Your task to perform on an android device: Search for the best rated mechanical keyboard on Amazon. Image 0: 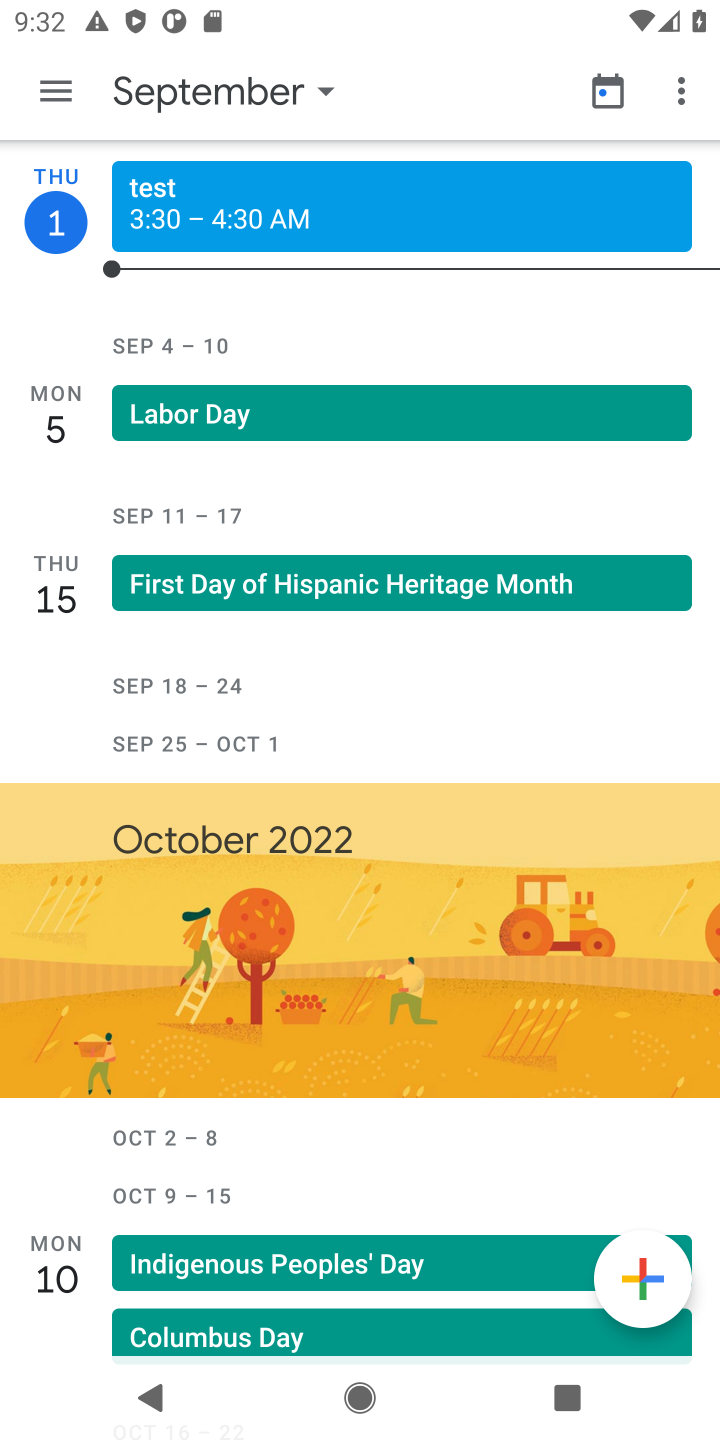
Step 0: press home button
Your task to perform on an android device: Search for the best rated mechanical keyboard on Amazon. Image 1: 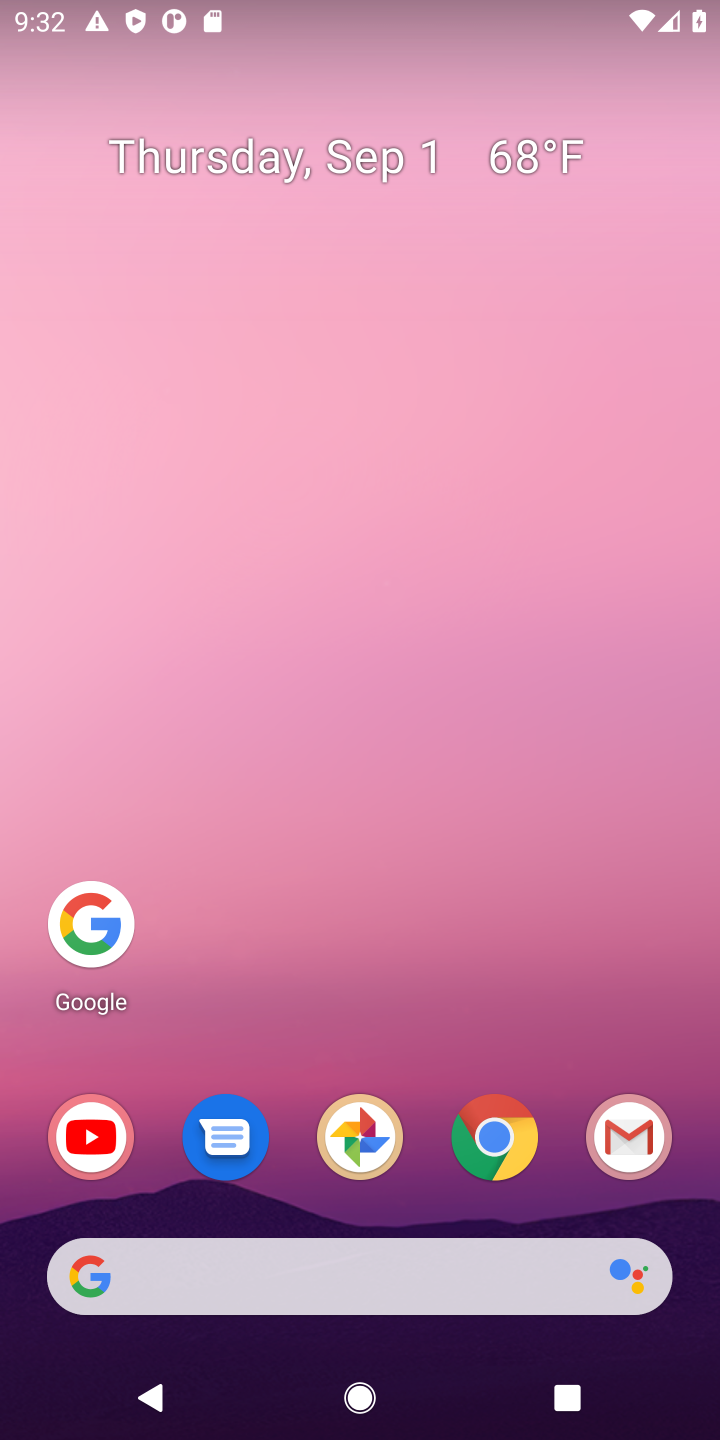
Step 1: click (211, 1288)
Your task to perform on an android device: Search for the best rated mechanical keyboard on Amazon. Image 2: 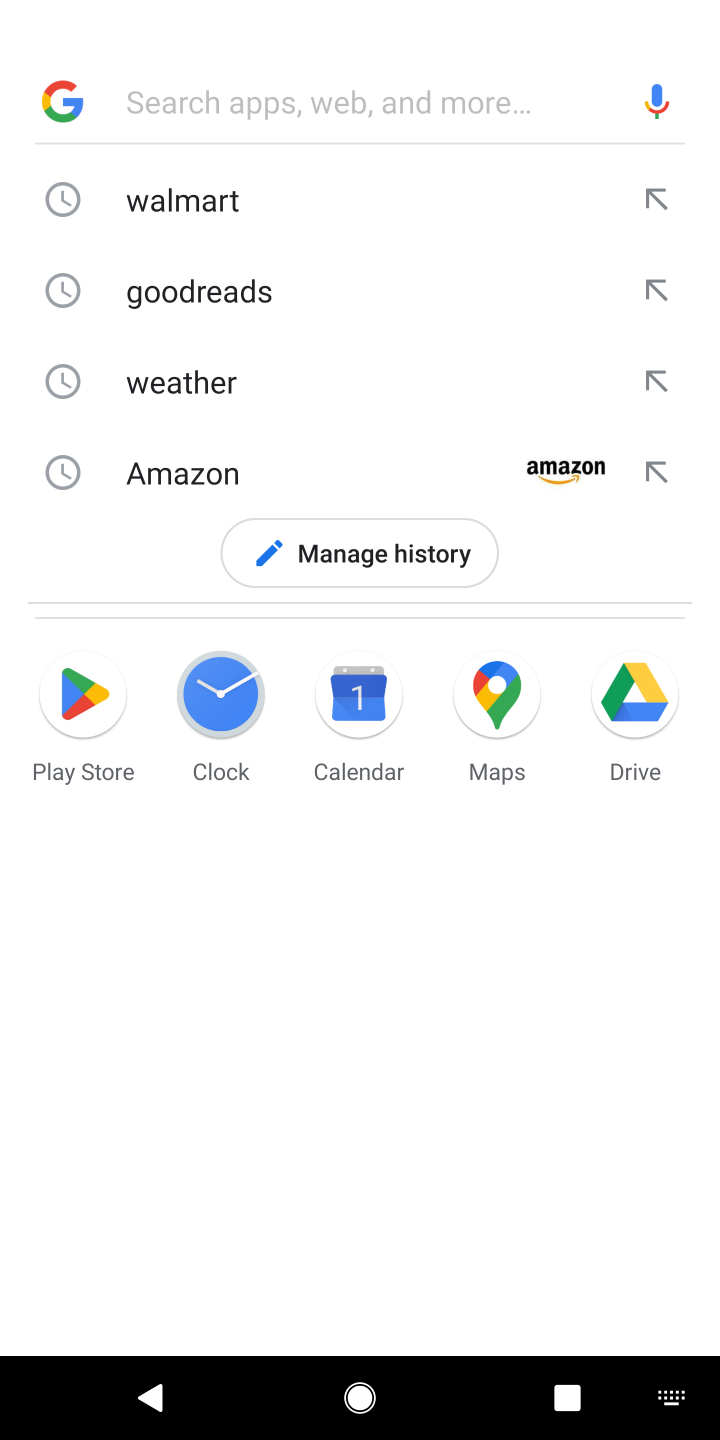
Step 2: click (160, 474)
Your task to perform on an android device: Search for the best rated mechanical keyboard on Amazon. Image 3: 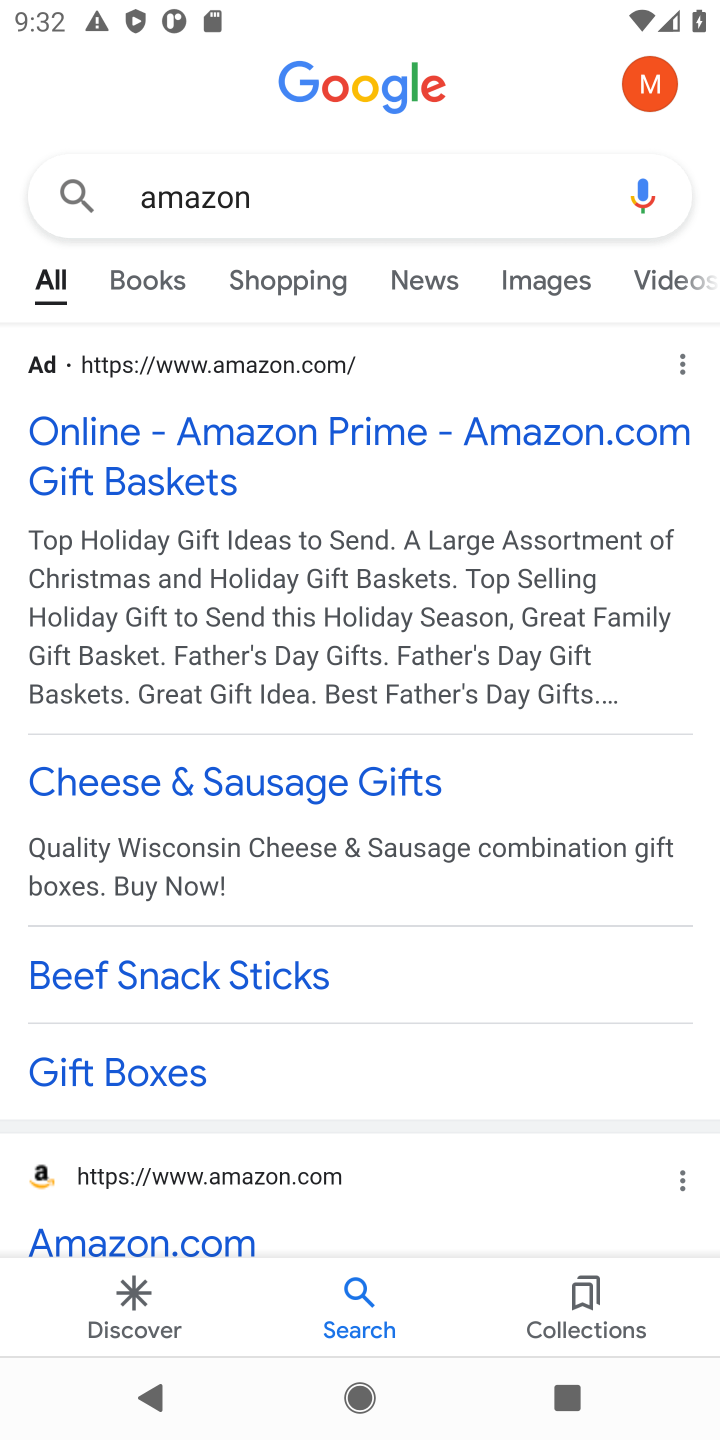
Step 3: click (177, 448)
Your task to perform on an android device: Search for the best rated mechanical keyboard on Amazon. Image 4: 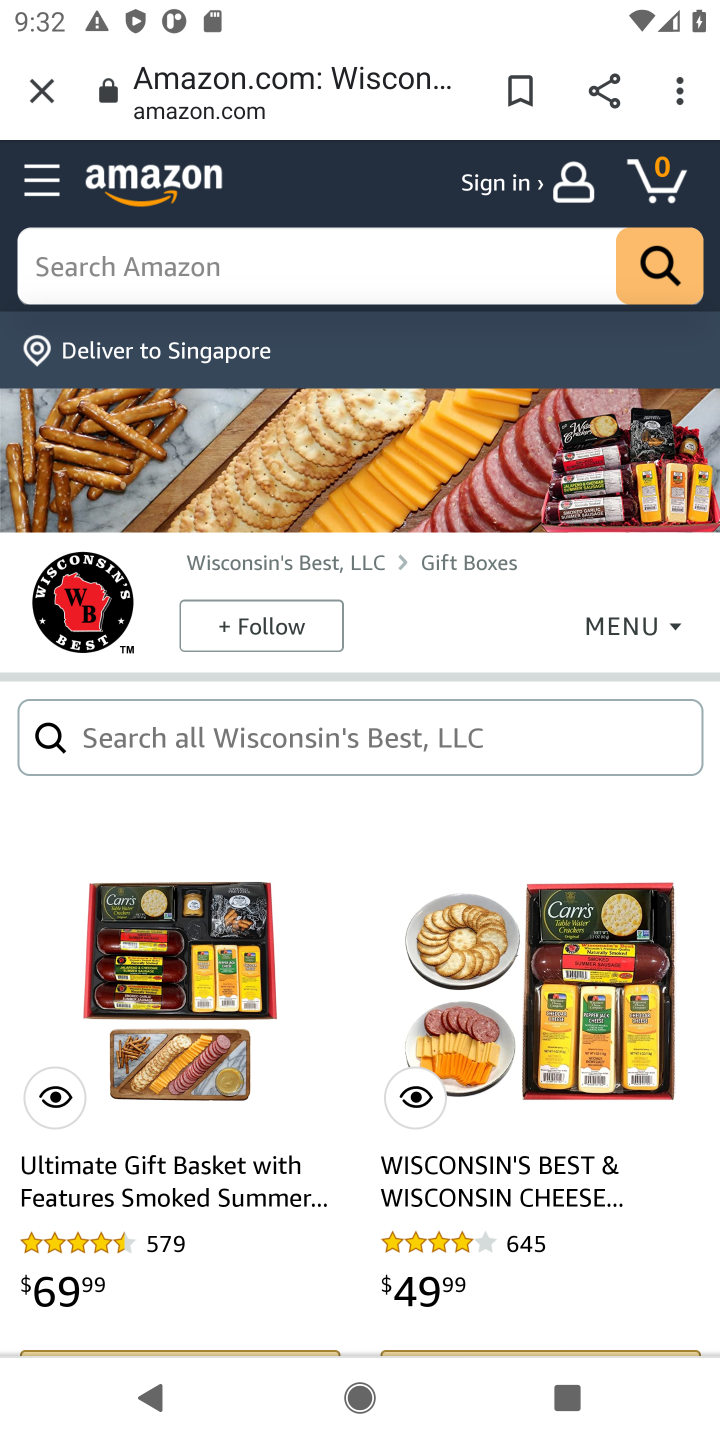
Step 4: click (315, 255)
Your task to perform on an android device: Search for the best rated mechanical keyboard on Amazon. Image 5: 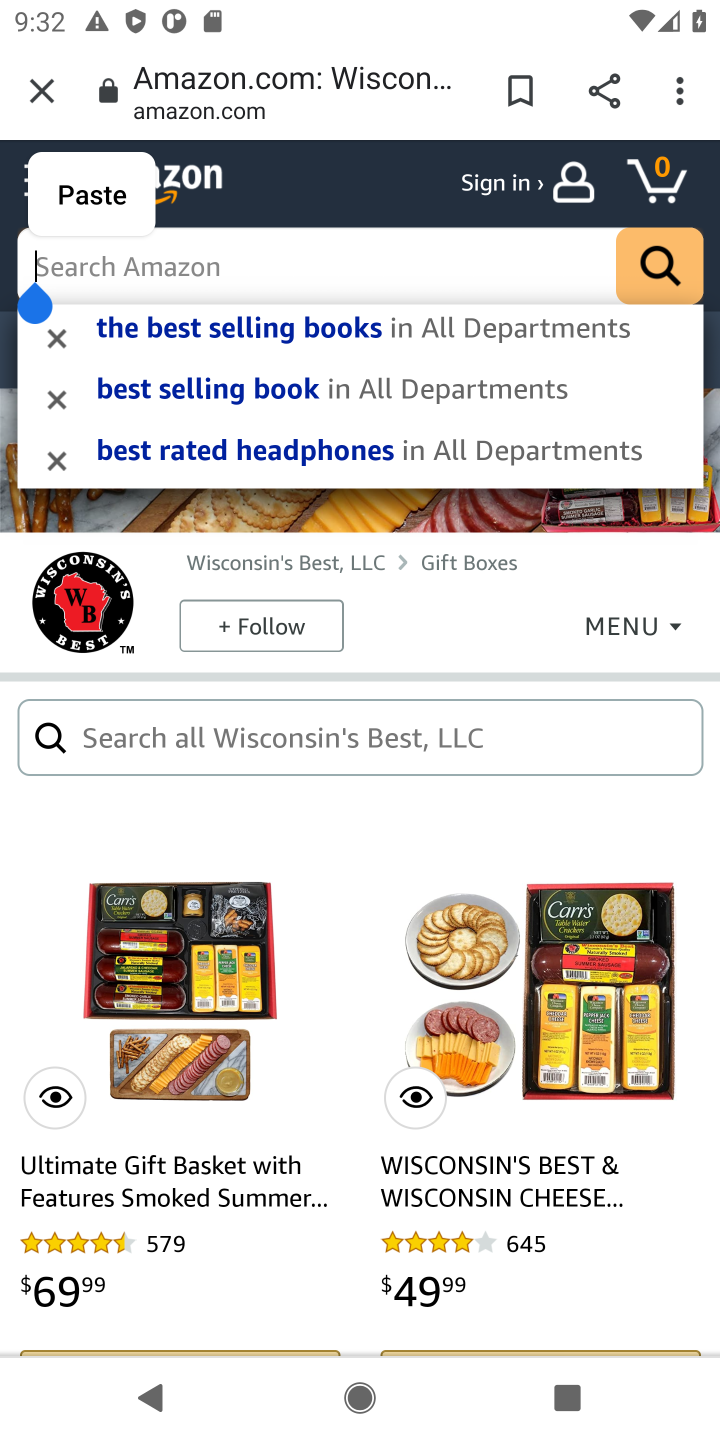
Step 5: type "best rated mechanical keyboard"
Your task to perform on an android device: Search for the best rated mechanical keyboard on Amazon. Image 6: 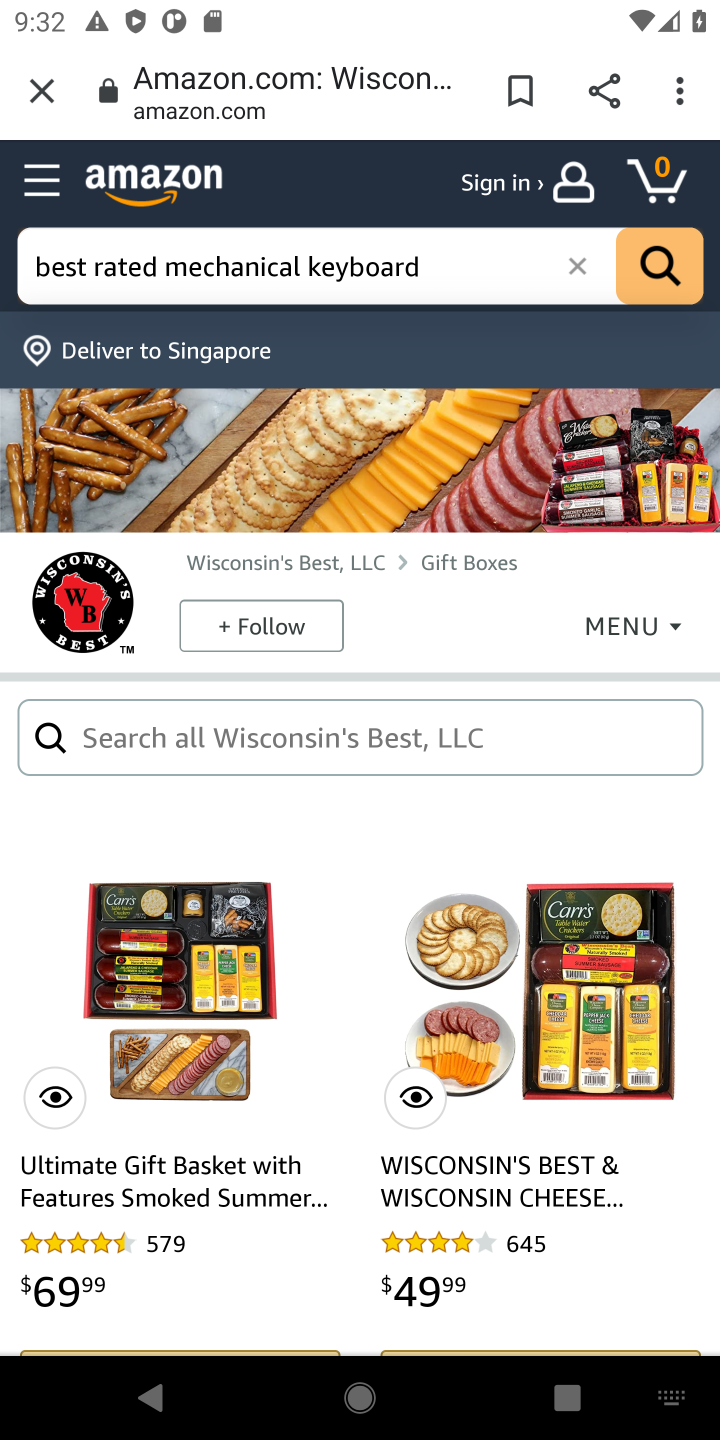
Step 6: click (667, 266)
Your task to perform on an android device: Search for the best rated mechanical keyboard on Amazon. Image 7: 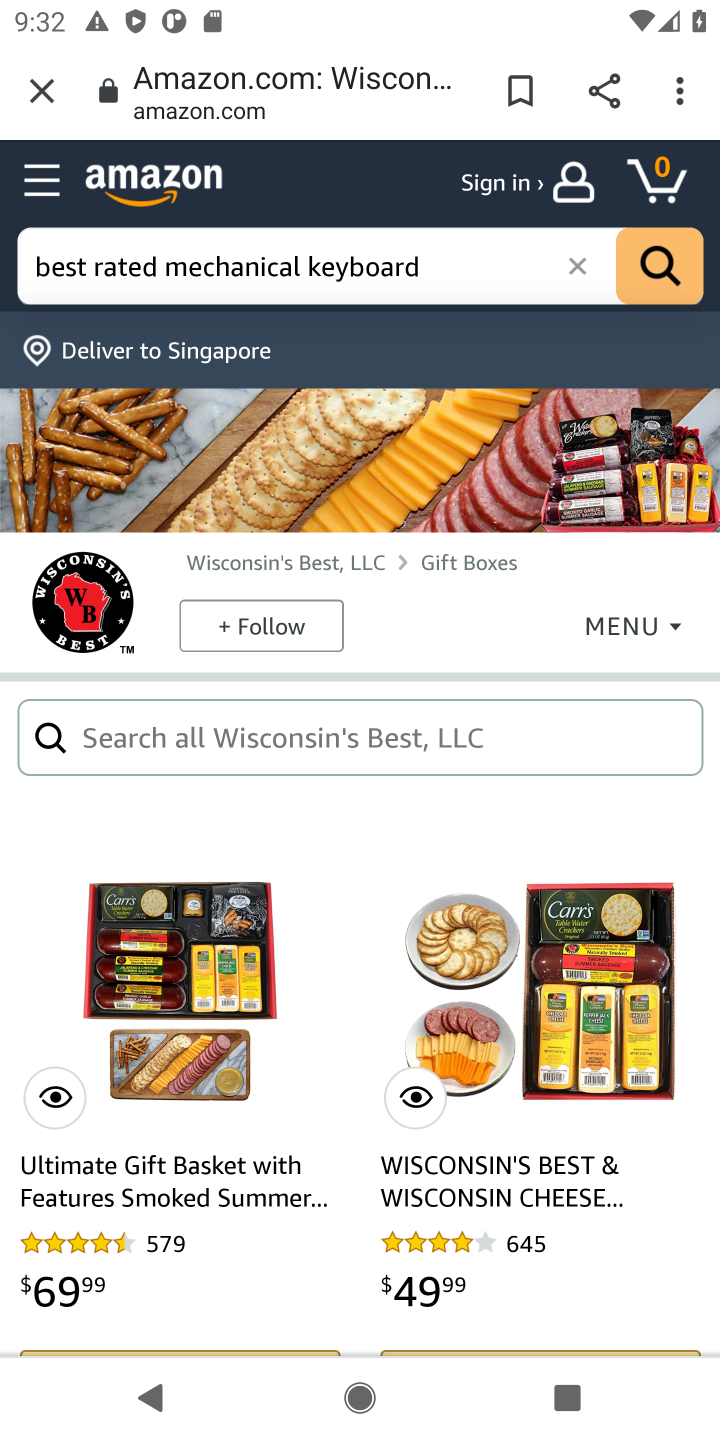
Step 7: click (648, 254)
Your task to perform on an android device: Search for the best rated mechanical keyboard on Amazon. Image 8: 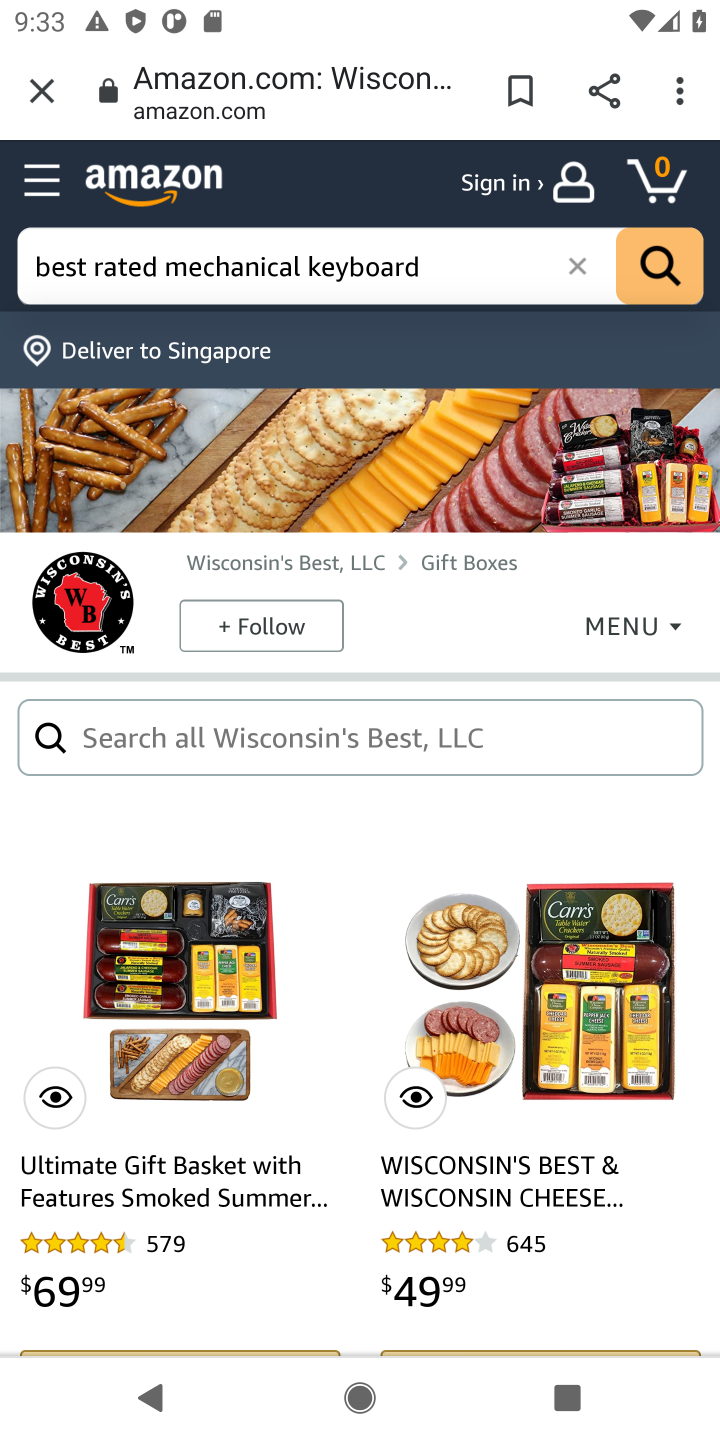
Step 8: click (649, 258)
Your task to perform on an android device: Search for the best rated mechanical keyboard on Amazon. Image 9: 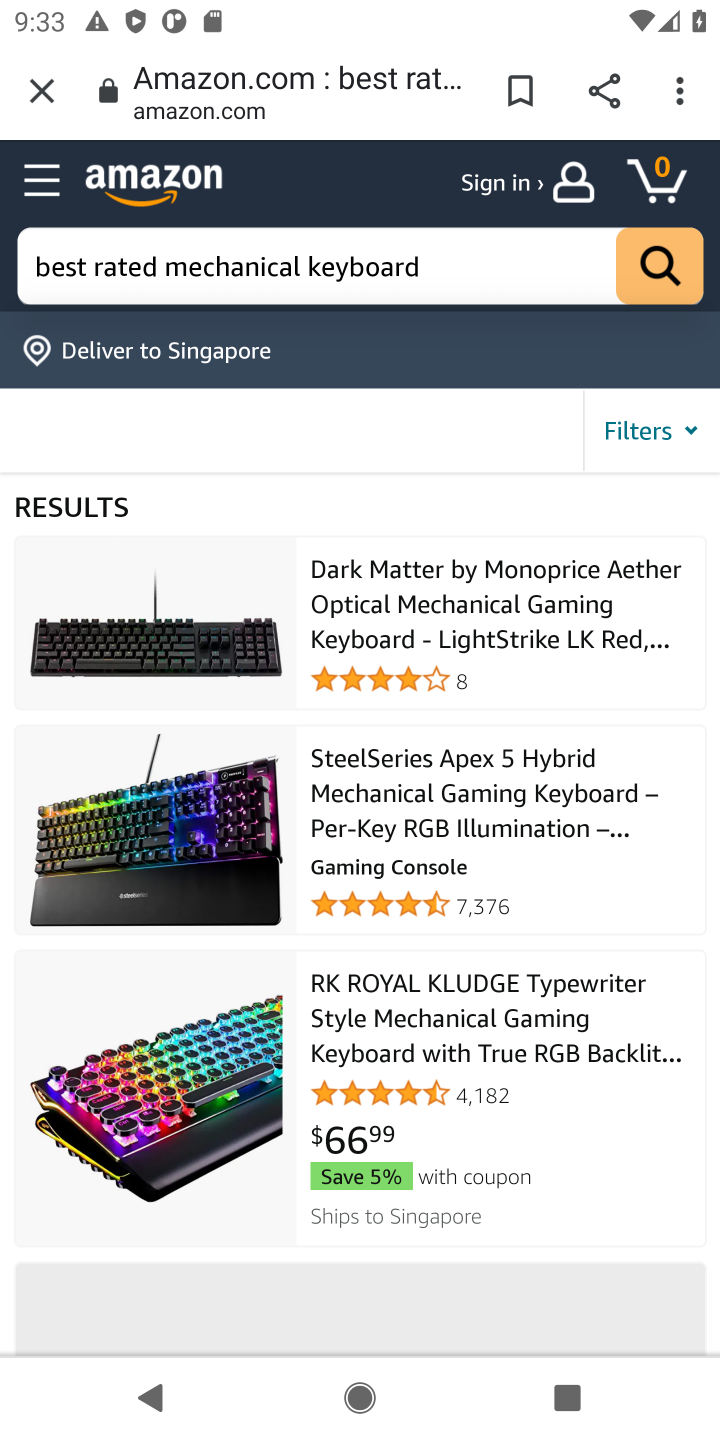
Step 9: task complete